Your task to perform on an android device: open chrome privacy settings Image 0: 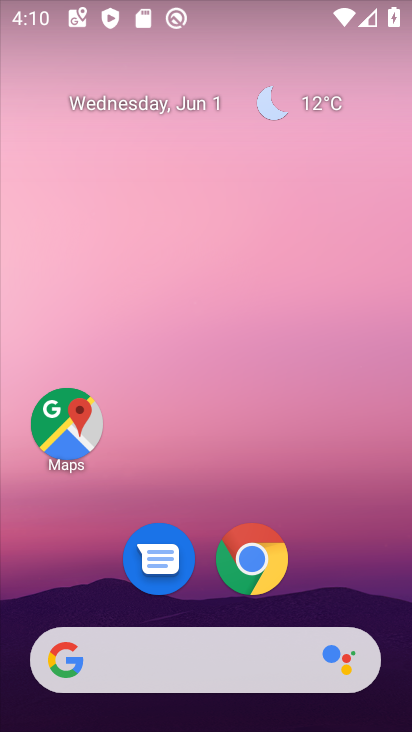
Step 0: click (246, 553)
Your task to perform on an android device: open chrome privacy settings Image 1: 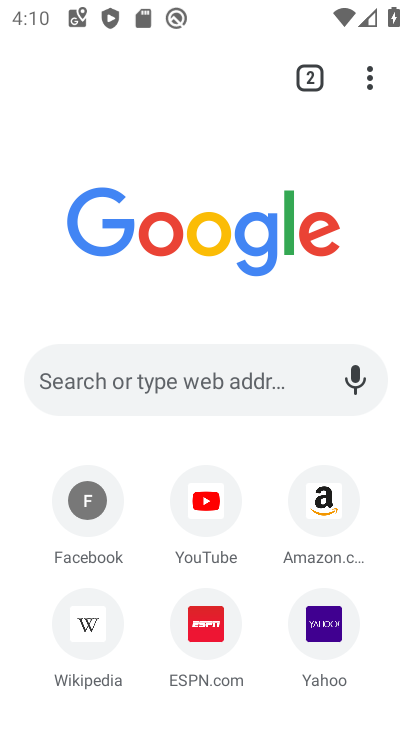
Step 1: click (378, 72)
Your task to perform on an android device: open chrome privacy settings Image 2: 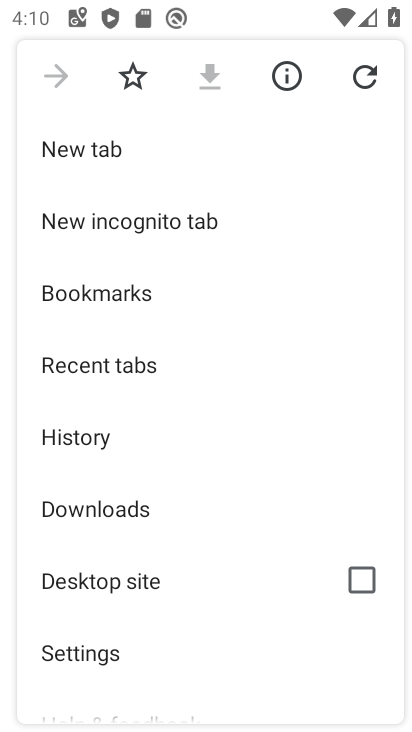
Step 2: click (152, 656)
Your task to perform on an android device: open chrome privacy settings Image 3: 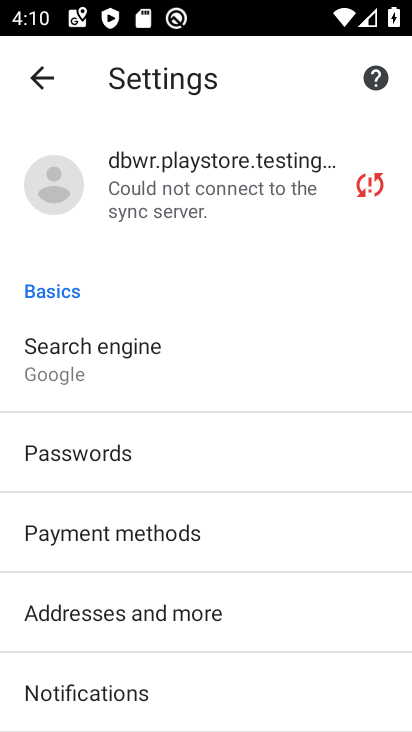
Step 3: drag from (104, 623) to (123, 342)
Your task to perform on an android device: open chrome privacy settings Image 4: 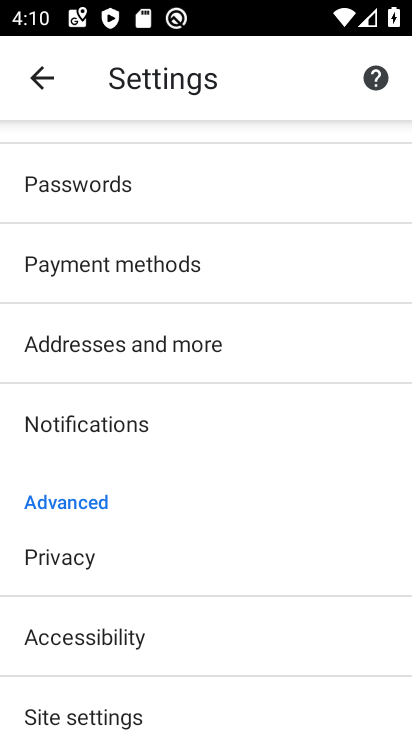
Step 4: click (98, 561)
Your task to perform on an android device: open chrome privacy settings Image 5: 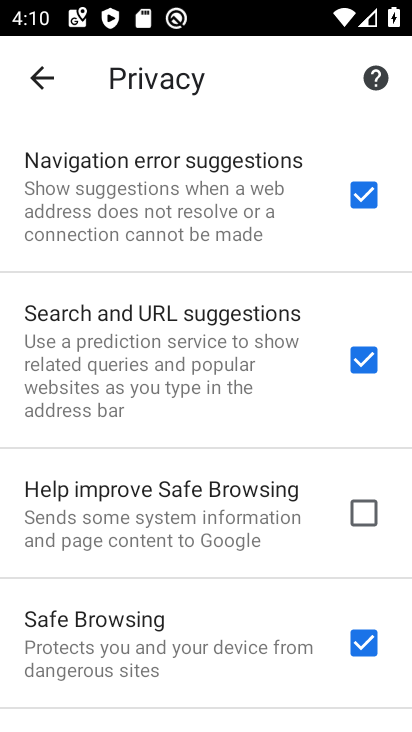
Step 5: task complete